Your task to perform on an android device: Do I have any events tomorrow? Image 0: 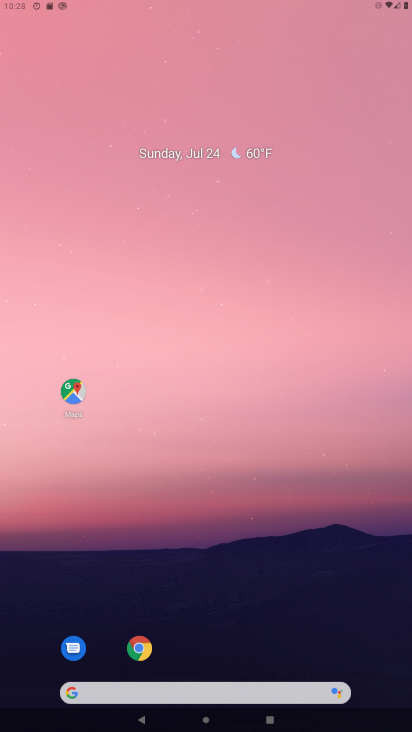
Step 0: click (224, 56)
Your task to perform on an android device: Do I have any events tomorrow? Image 1: 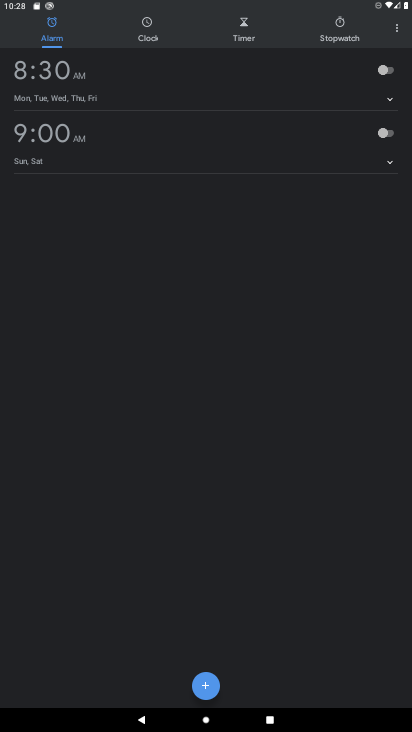
Step 1: press home button
Your task to perform on an android device: Do I have any events tomorrow? Image 2: 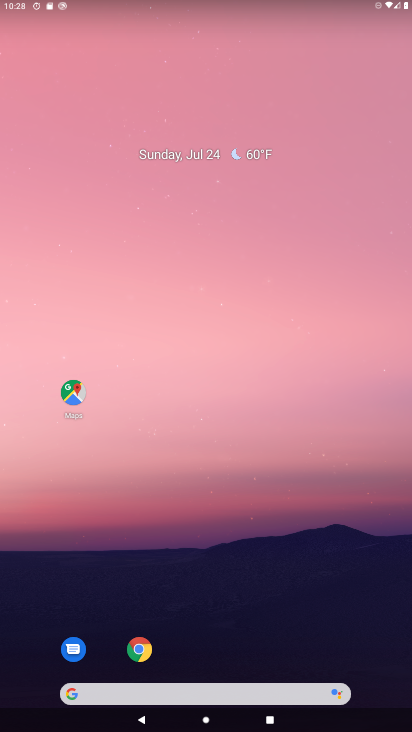
Step 2: drag from (313, 594) to (176, 46)
Your task to perform on an android device: Do I have any events tomorrow? Image 3: 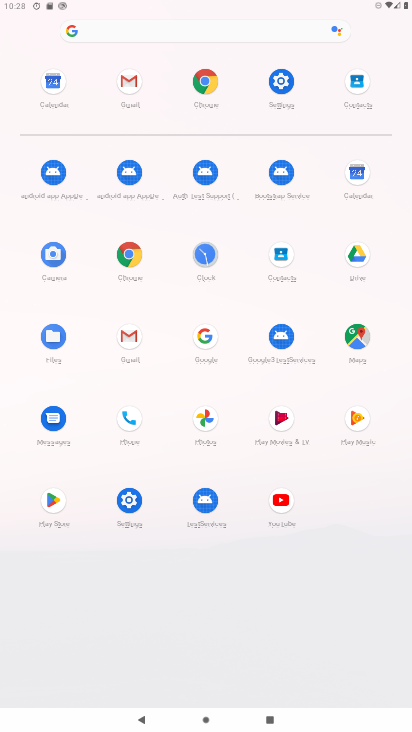
Step 3: click (363, 169)
Your task to perform on an android device: Do I have any events tomorrow? Image 4: 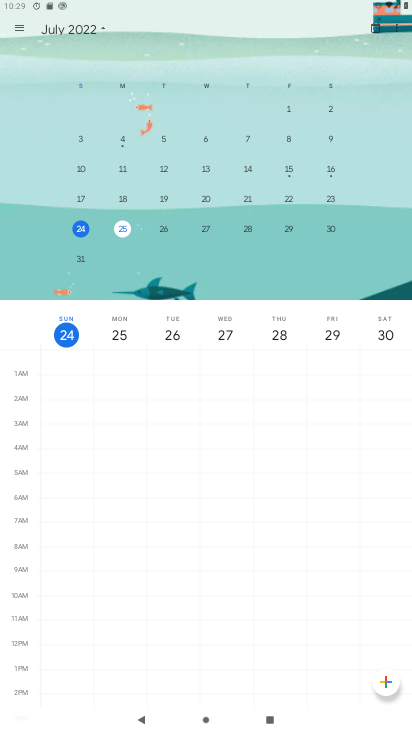
Step 4: click (127, 225)
Your task to perform on an android device: Do I have any events tomorrow? Image 5: 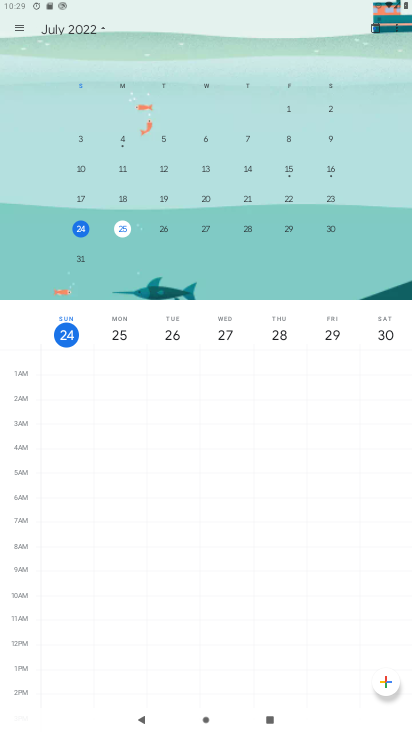
Step 5: click (126, 223)
Your task to perform on an android device: Do I have any events tomorrow? Image 6: 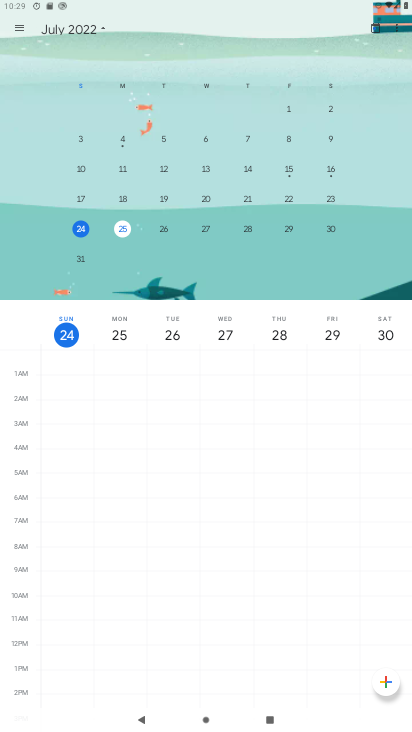
Step 6: click (122, 341)
Your task to perform on an android device: Do I have any events tomorrow? Image 7: 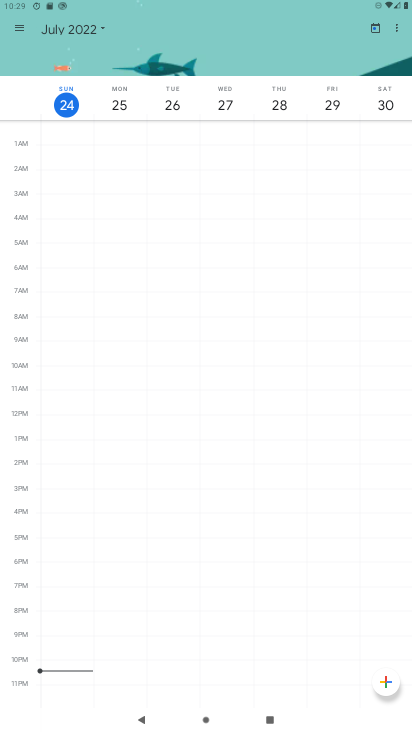
Step 7: click (124, 110)
Your task to perform on an android device: Do I have any events tomorrow? Image 8: 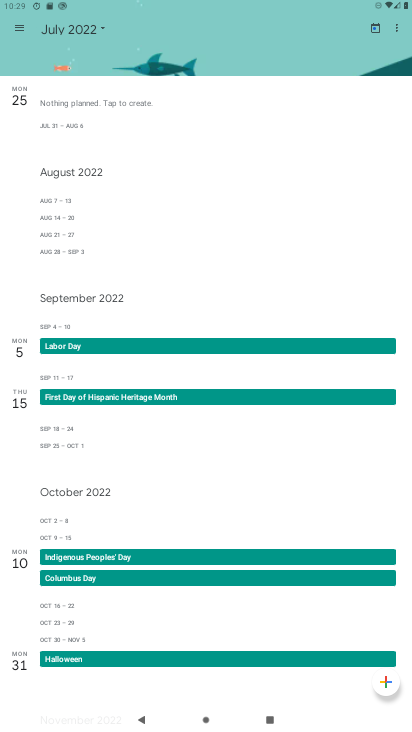
Step 8: task complete